Your task to perform on an android device: turn on javascript in the chrome app Image 0: 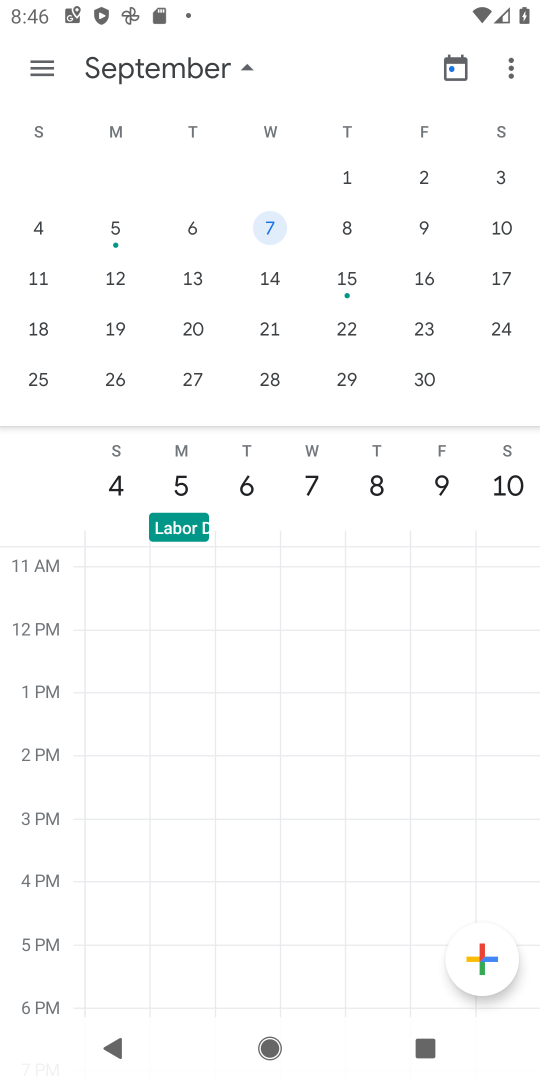
Step 0: press home button
Your task to perform on an android device: turn on javascript in the chrome app Image 1: 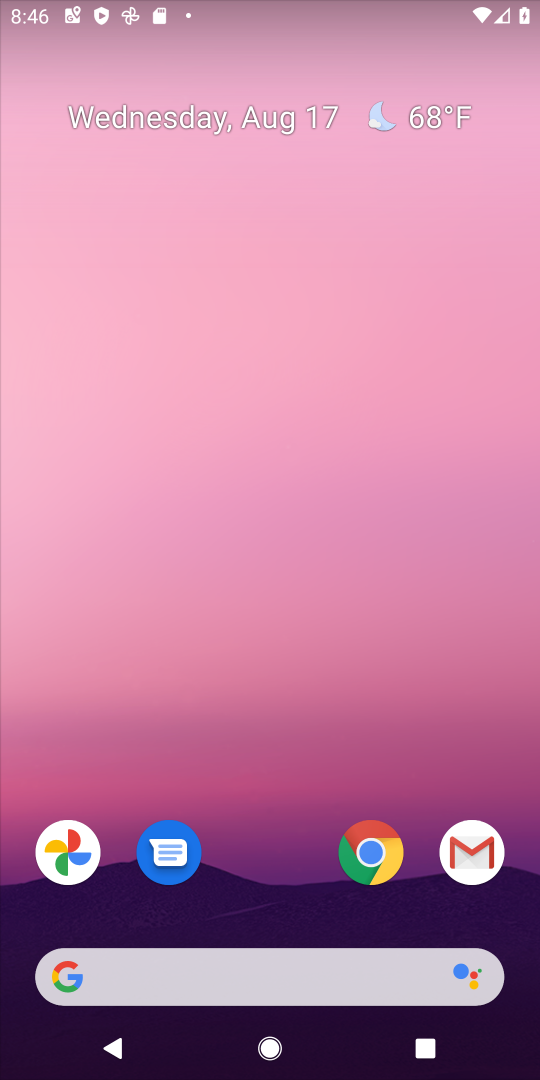
Step 1: click (370, 851)
Your task to perform on an android device: turn on javascript in the chrome app Image 2: 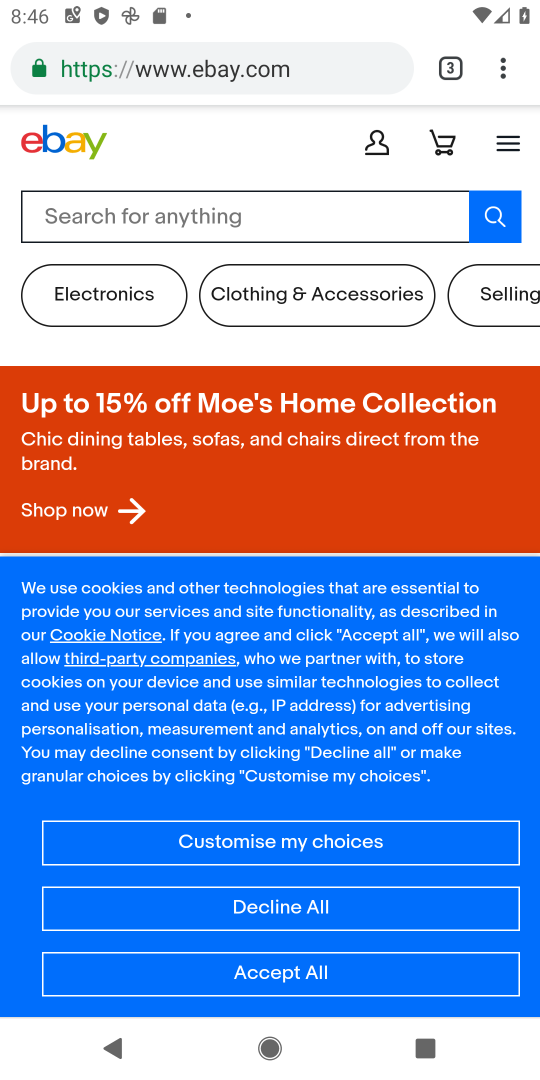
Step 2: click (504, 69)
Your task to perform on an android device: turn on javascript in the chrome app Image 3: 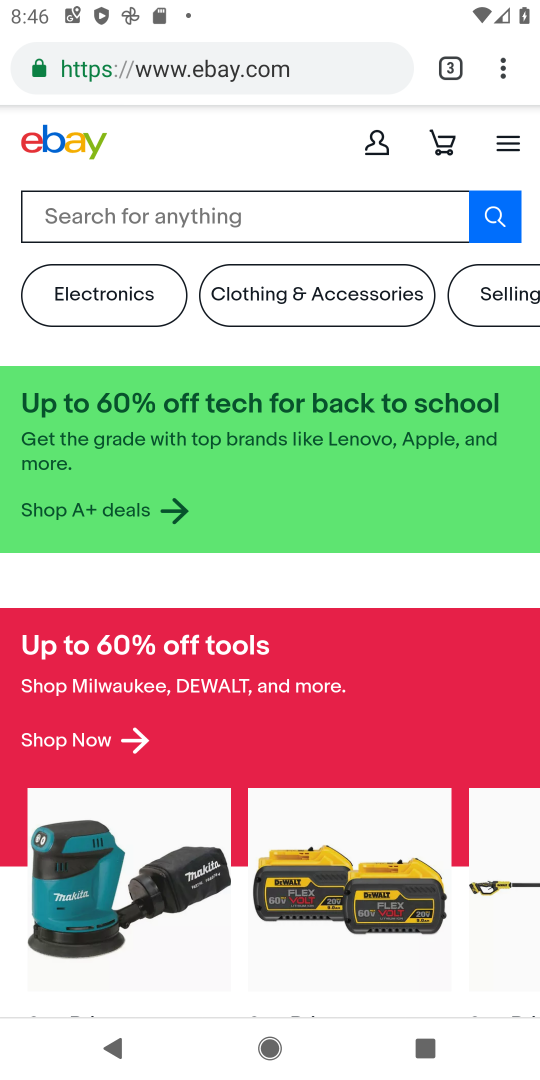
Step 3: click (493, 59)
Your task to perform on an android device: turn on javascript in the chrome app Image 4: 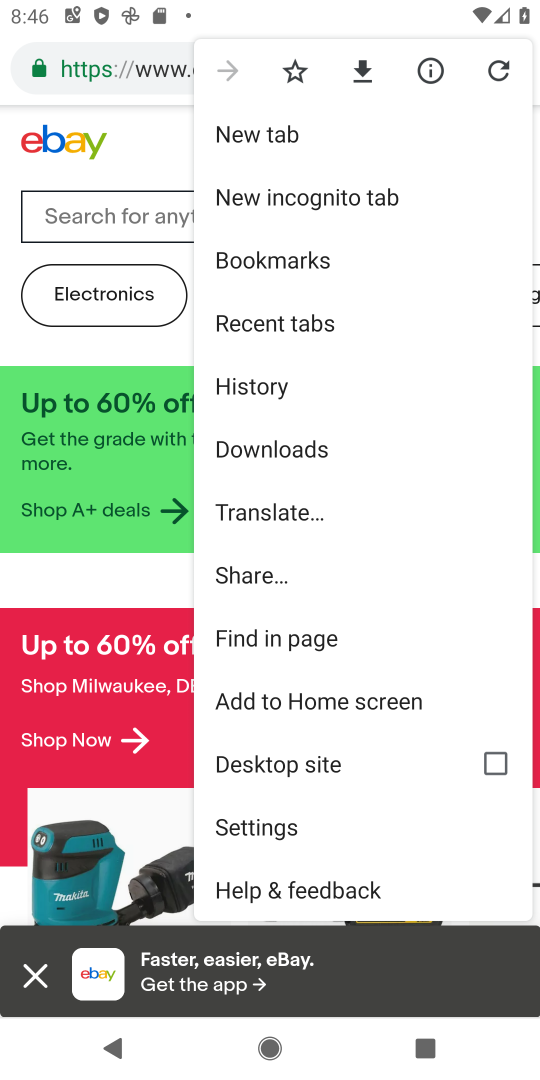
Step 4: click (260, 823)
Your task to perform on an android device: turn on javascript in the chrome app Image 5: 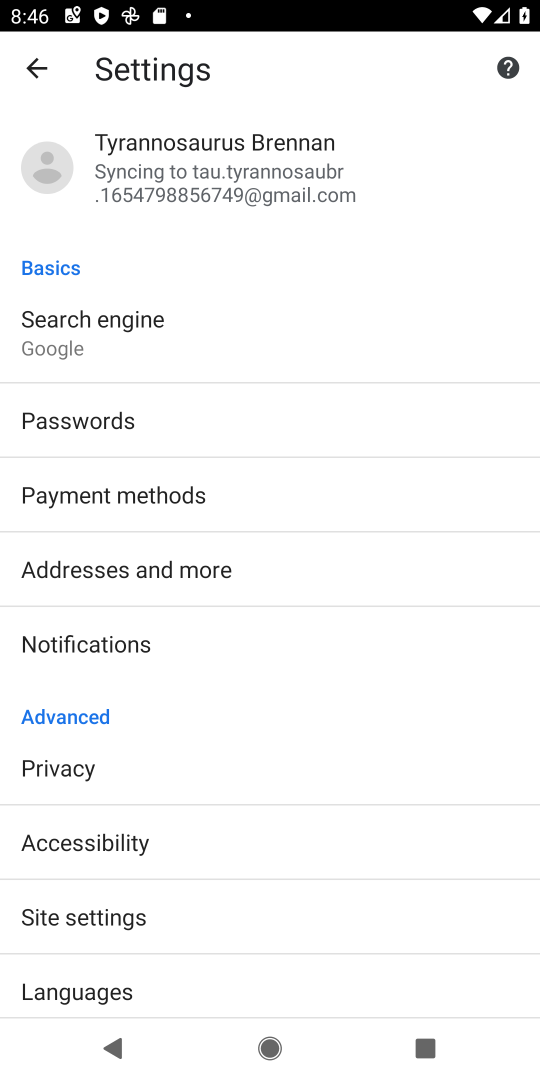
Step 5: click (94, 916)
Your task to perform on an android device: turn on javascript in the chrome app Image 6: 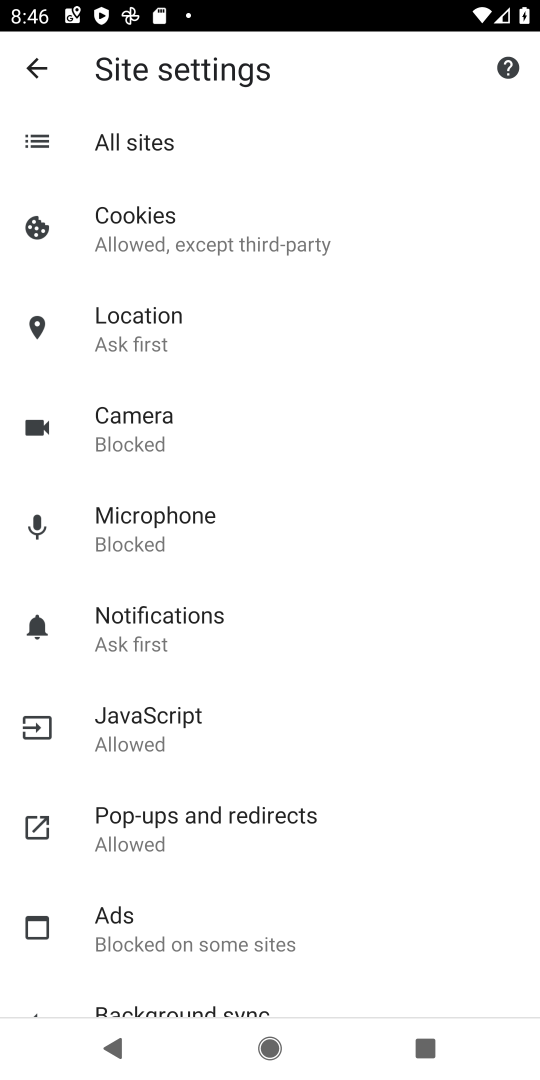
Step 6: click (152, 717)
Your task to perform on an android device: turn on javascript in the chrome app Image 7: 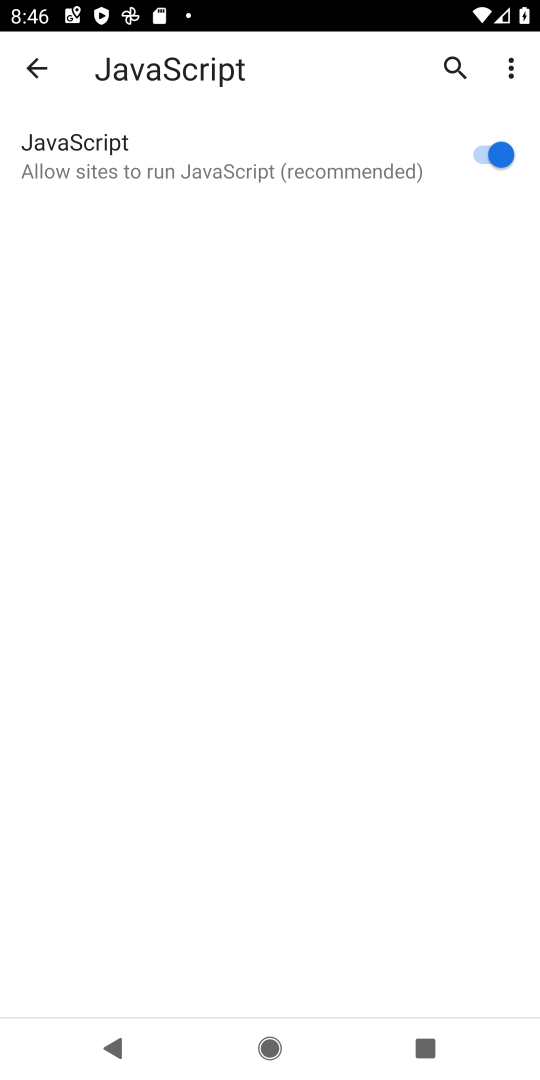
Step 7: task complete